Your task to perform on an android device: check data usage Image 0: 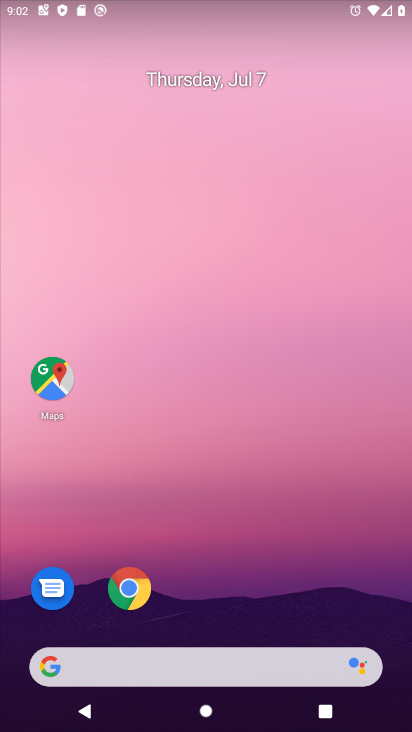
Step 0: press home button
Your task to perform on an android device: check data usage Image 1: 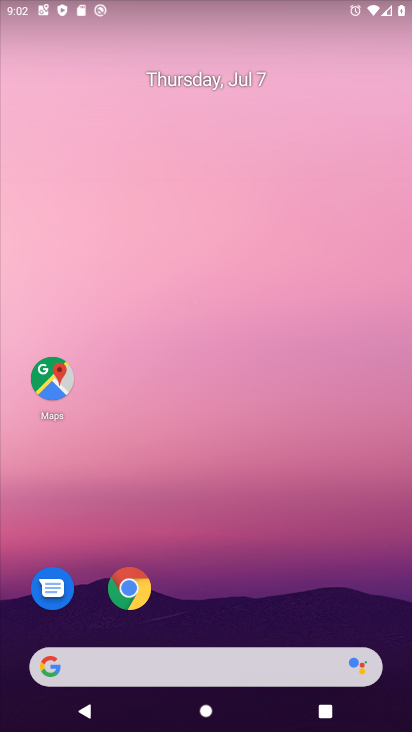
Step 1: drag from (207, 631) to (252, 99)
Your task to perform on an android device: check data usage Image 2: 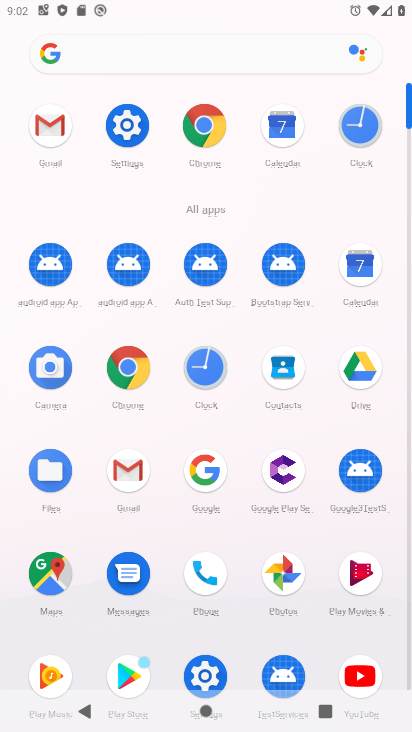
Step 2: click (123, 118)
Your task to perform on an android device: check data usage Image 3: 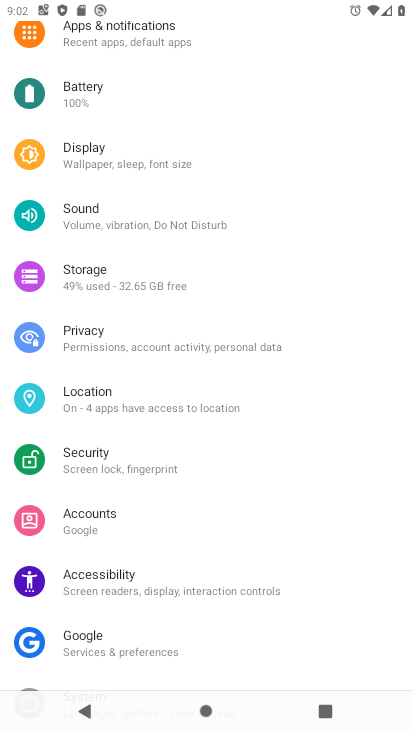
Step 3: drag from (171, 105) to (195, 518)
Your task to perform on an android device: check data usage Image 4: 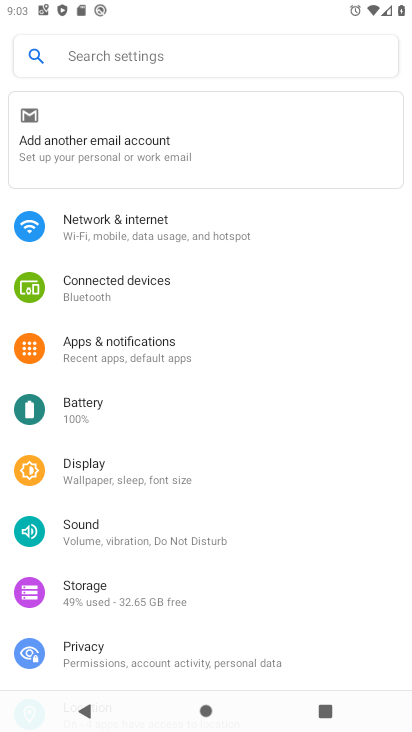
Step 4: click (182, 220)
Your task to perform on an android device: check data usage Image 5: 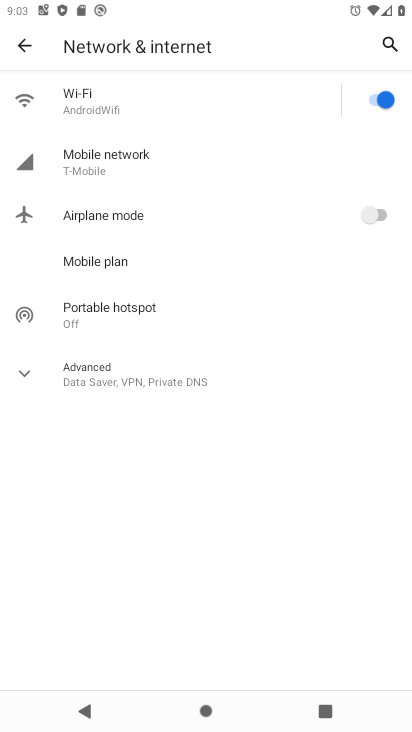
Step 5: click (127, 162)
Your task to perform on an android device: check data usage Image 6: 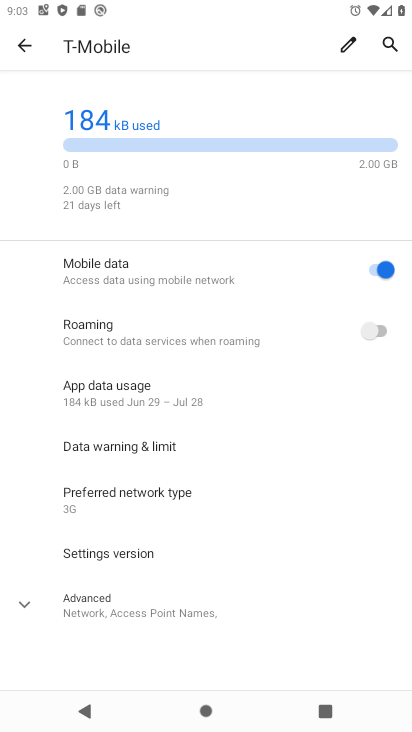
Step 6: click (151, 386)
Your task to perform on an android device: check data usage Image 7: 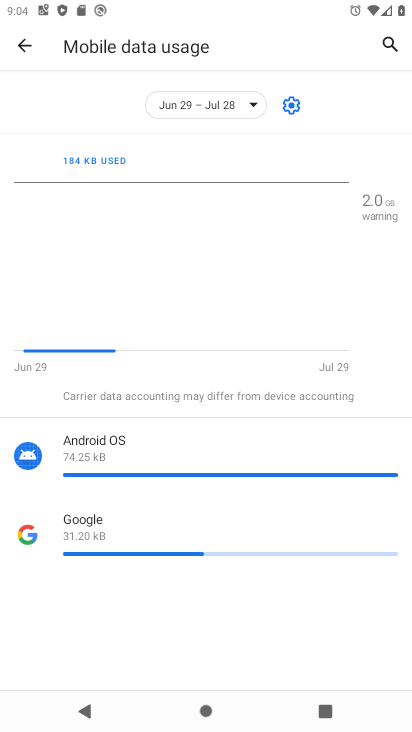
Step 7: task complete